Your task to perform on an android device: turn off smart reply in the gmail app Image 0: 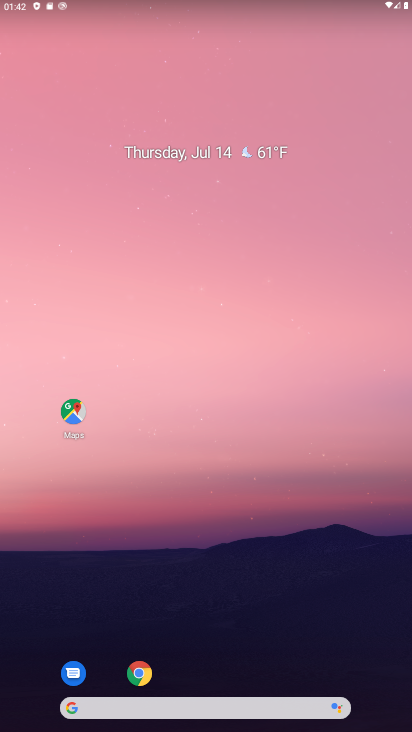
Step 0: drag from (264, 666) to (248, 262)
Your task to perform on an android device: turn off smart reply in the gmail app Image 1: 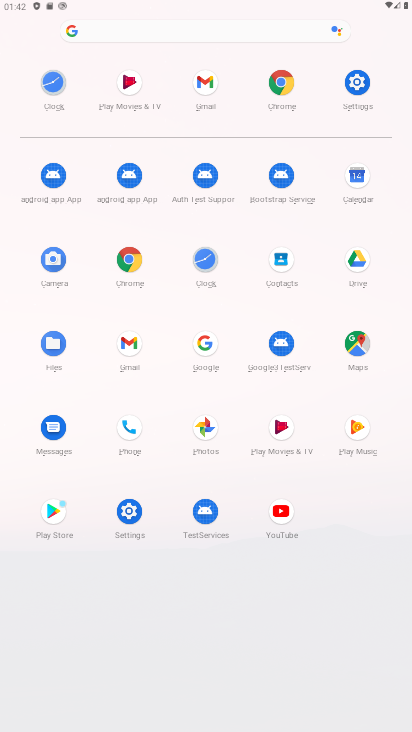
Step 1: click (211, 113)
Your task to perform on an android device: turn off smart reply in the gmail app Image 2: 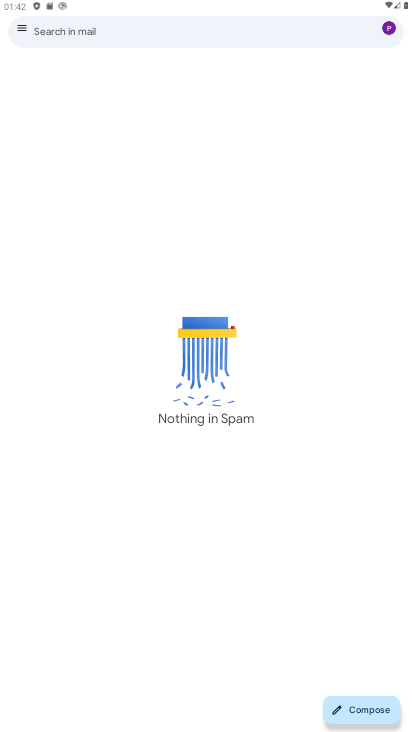
Step 2: click (22, 37)
Your task to perform on an android device: turn off smart reply in the gmail app Image 3: 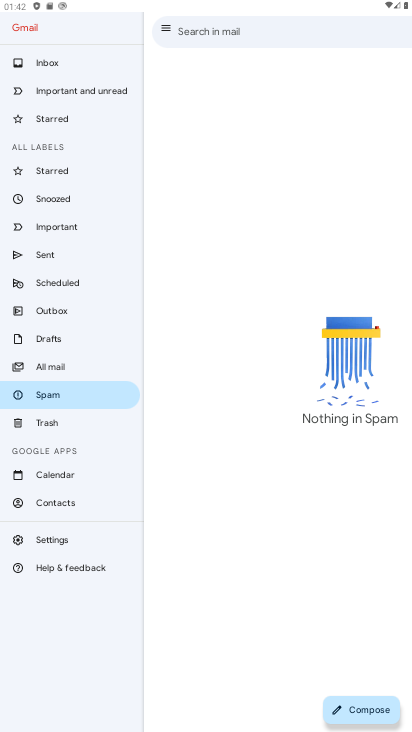
Step 3: click (73, 538)
Your task to perform on an android device: turn off smart reply in the gmail app Image 4: 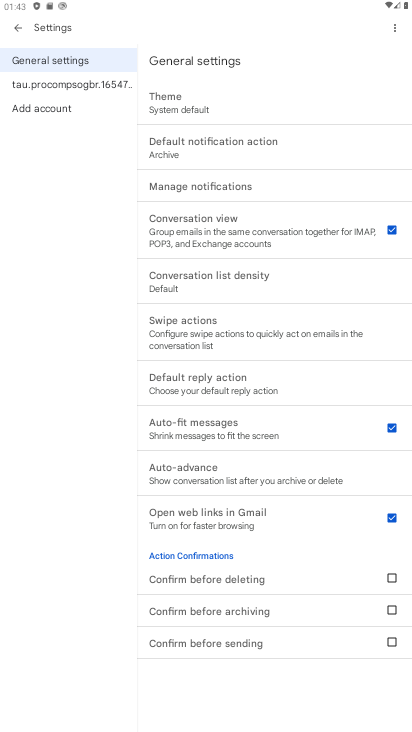
Step 4: click (68, 92)
Your task to perform on an android device: turn off smart reply in the gmail app Image 5: 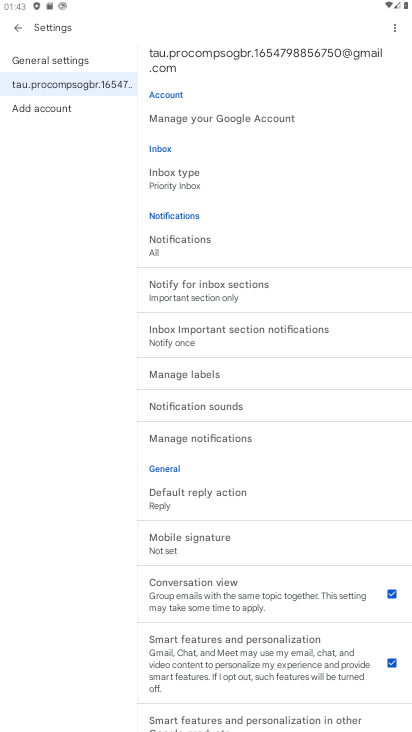
Step 5: drag from (340, 656) to (329, 241)
Your task to perform on an android device: turn off smart reply in the gmail app Image 6: 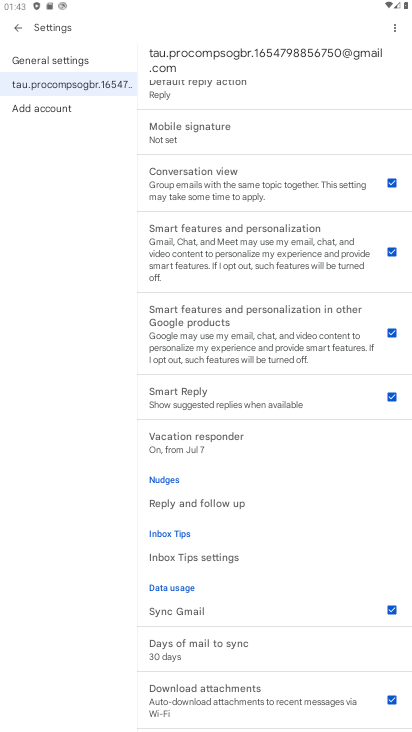
Step 6: click (387, 396)
Your task to perform on an android device: turn off smart reply in the gmail app Image 7: 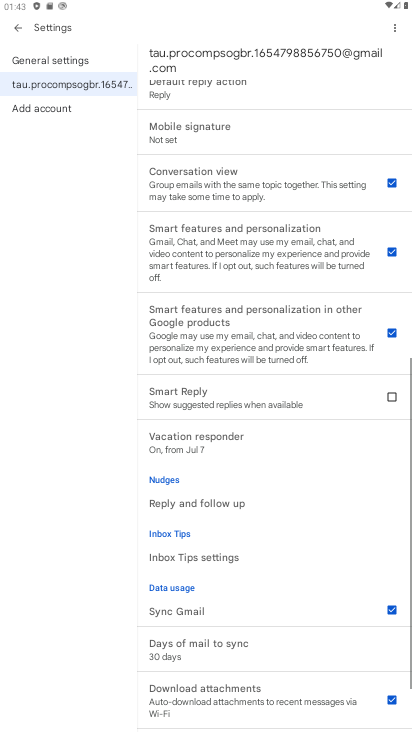
Step 7: task complete